Your task to perform on an android device: change timer sound Image 0: 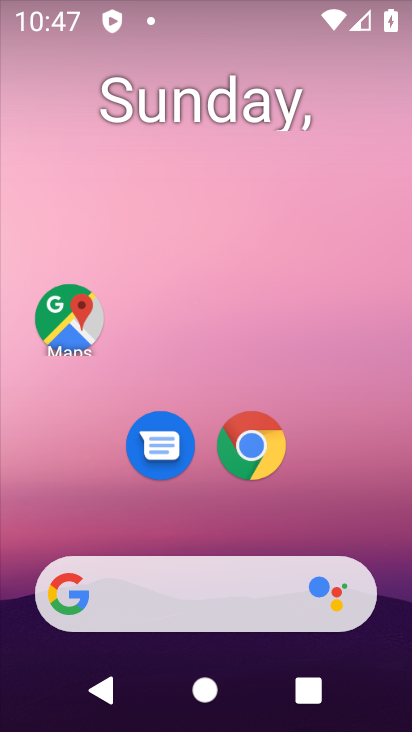
Step 0: drag from (94, 545) to (224, 81)
Your task to perform on an android device: change timer sound Image 1: 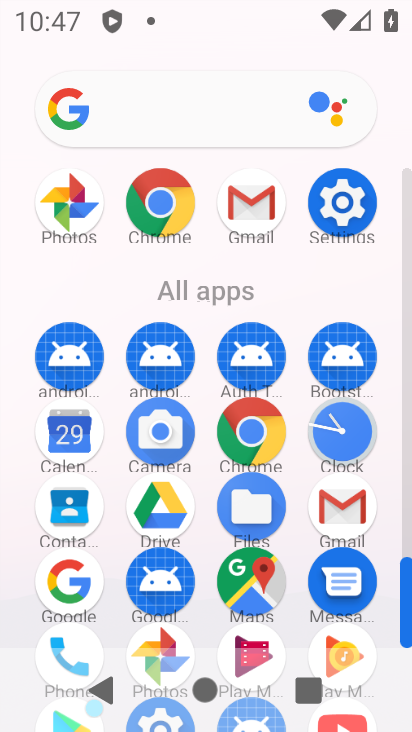
Step 1: click (345, 448)
Your task to perform on an android device: change timer sound Image 2: 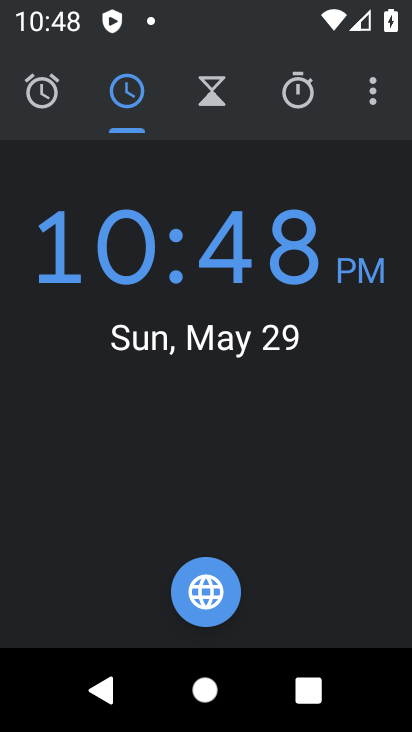
Step 2: click (390, 103)
Your task to perform on an android device: change timer sound Image 3: 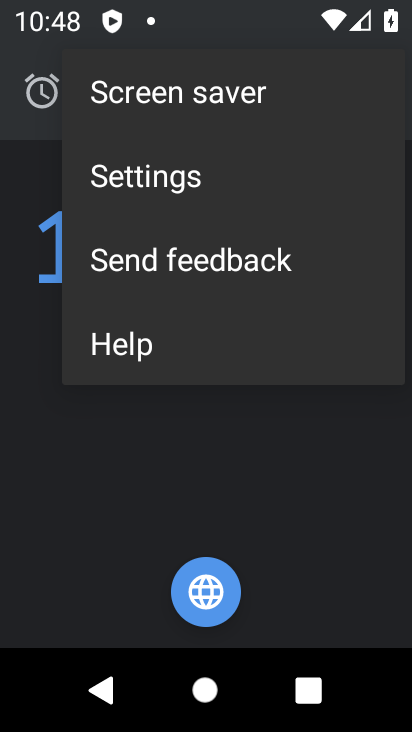
Step 3: click (341, 149)
Your task to perform on an android device: change timer sound Image 4: 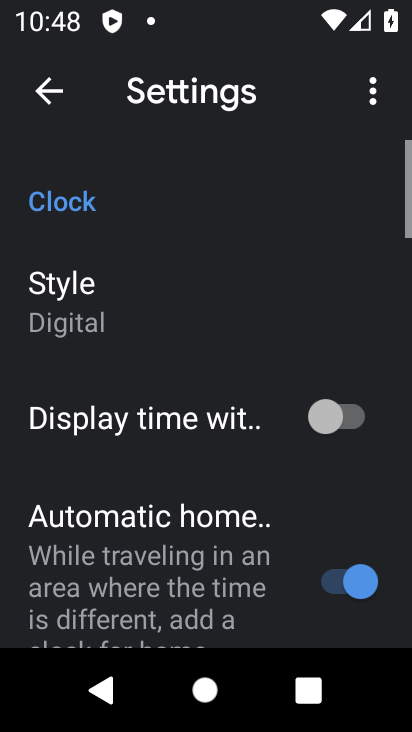
Step 4: drag from (281, 500) to (410, 173)
Your task to perform on an android device: change timer sound Image 5: 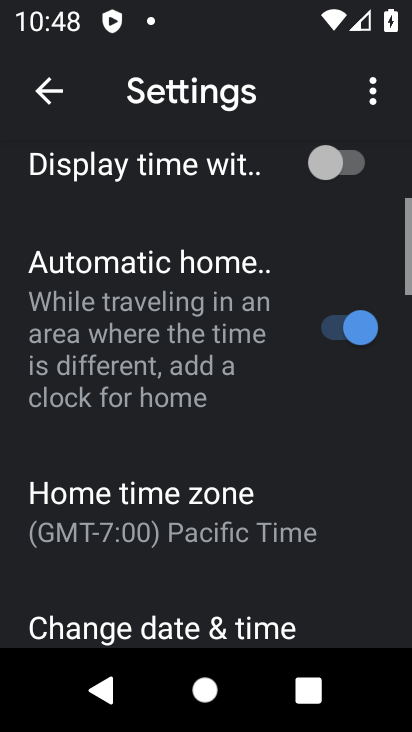
Step 5: drag from (232, 465) to (349, 109)
Your task to perform on an android device: change timer sound Image 6: 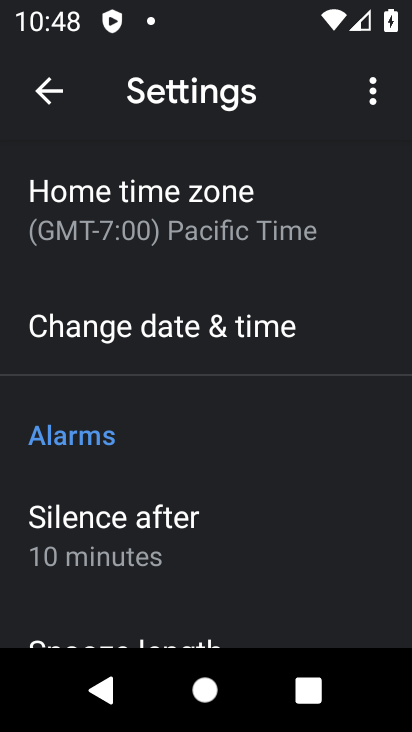
Step 6: drag from (216, 504) to (340, 129)
Your task to perform on an android device: change timer sound Image 7: 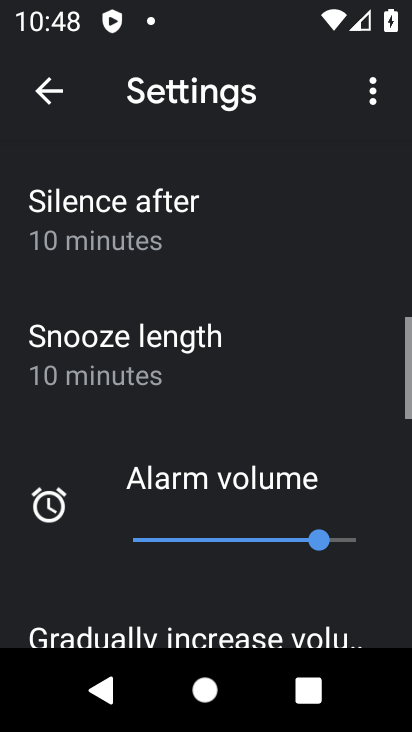
Step 7: drag from (235, 472) to (342, 137)
Your task to perform on an android device: change timer sound Image 8: 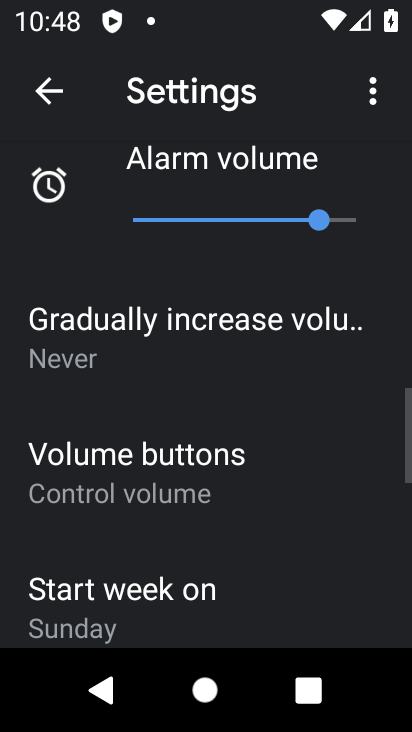
Step 8: drag from (238, 499) to (343, 128)
Your task to perform on an android device: change timer sound Image 9: 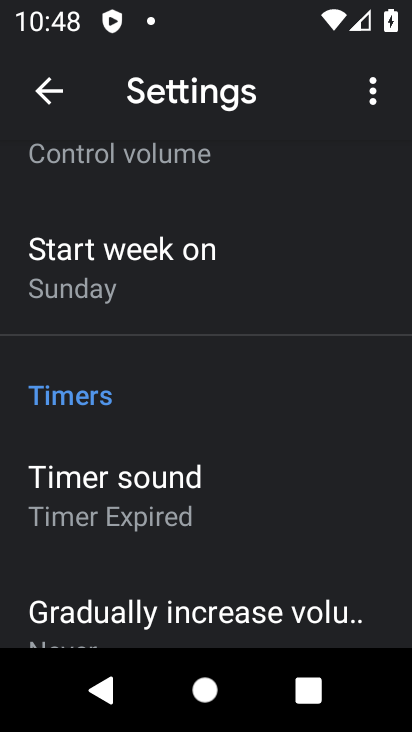
Step 9: click (243, 485)
Your task to perform on an android device: change timer sound Image 10: 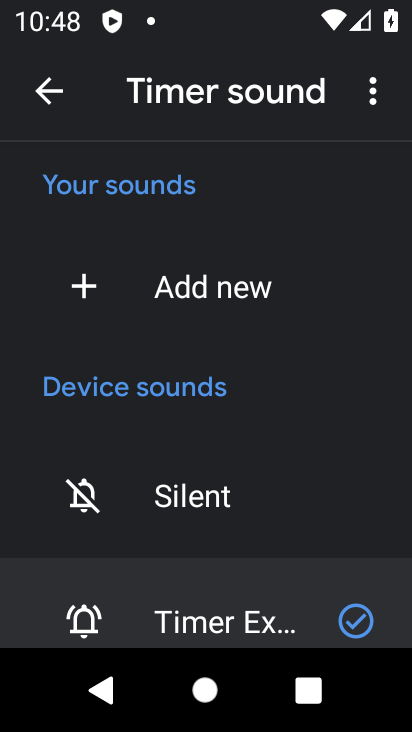
Step 10: drag from (254, 350) to (348, 107)
Your task to perform on an android device: change timer sound Image 11: 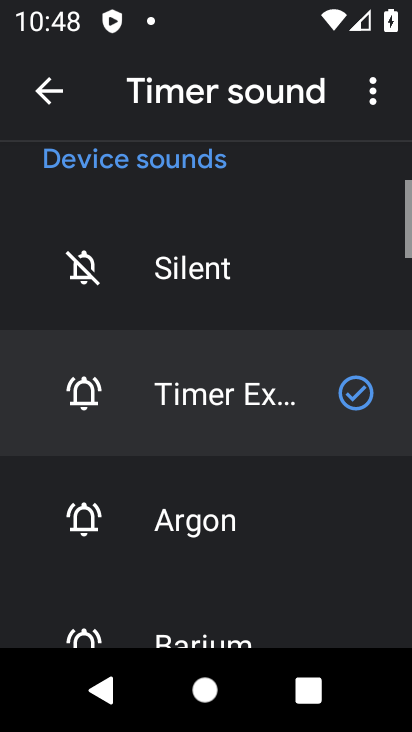
Step 11: drag from (256, 503) to (346, 141)
Your task to perform on an android device: change timer sound Image 12: 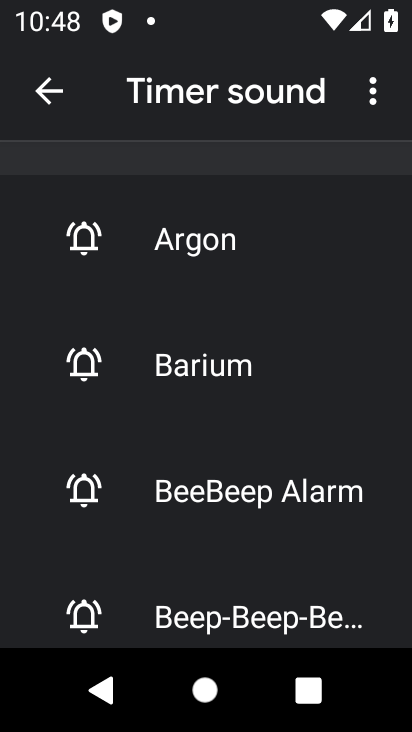
Step 12: click (288, 494)
Your task to perform on an android device: change timer sound Image 13: 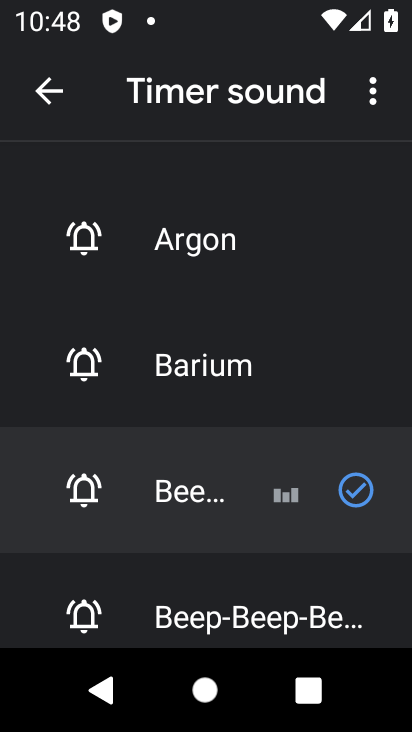
Step 13: task complete